Your task to perform on an android device: empty trash in google photos Image 0: 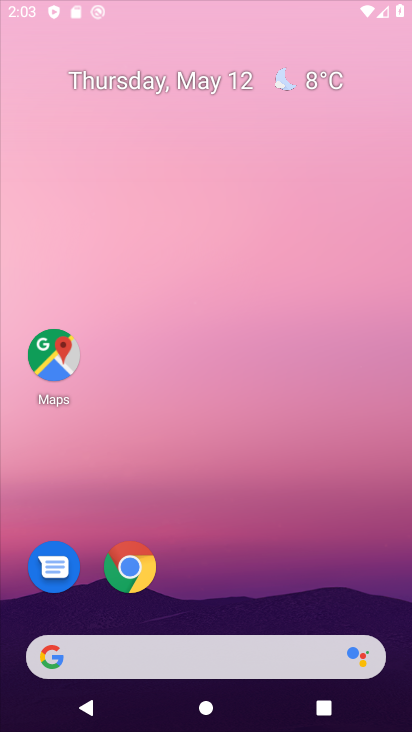
Step 0: click (63, 355)
Your task to perform on an android device: empty trash in google photos Image 1: 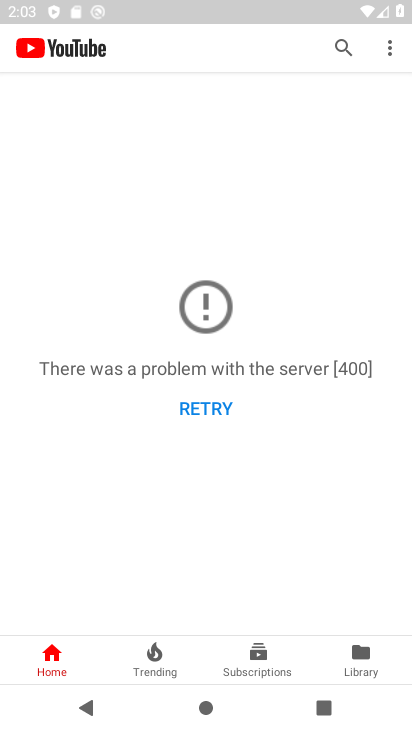
Step 1: press home button
Your task to perform on an android device: empty trash in google photos Image 2: 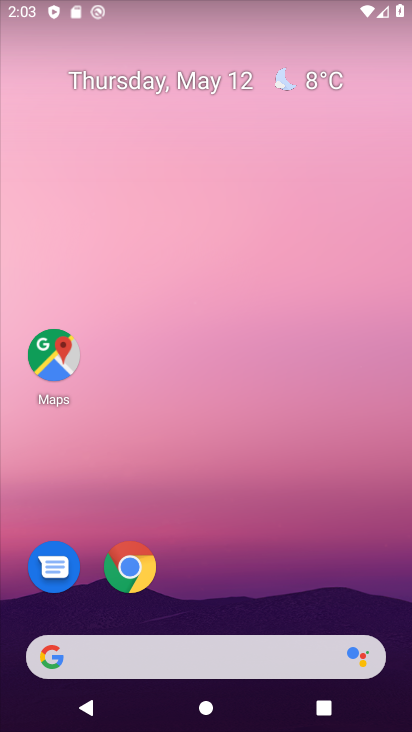
Step 2: drag from (242, 490) to (263, 183)
Your task to perform on an android device: empty trash in google photos Image 3: 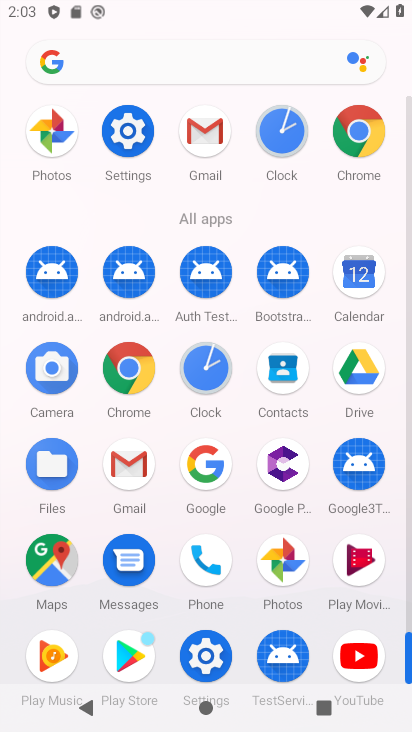
Step 3: click (57, 135)
Your task to perform on an android device: empty trash in google photos Image 4: 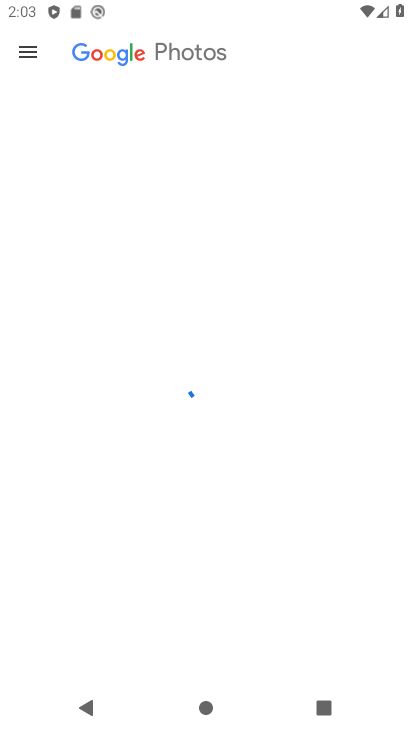
Step 4: click (31, 53)
Your task to perform on an android device: empty trash in google photos Image 5: 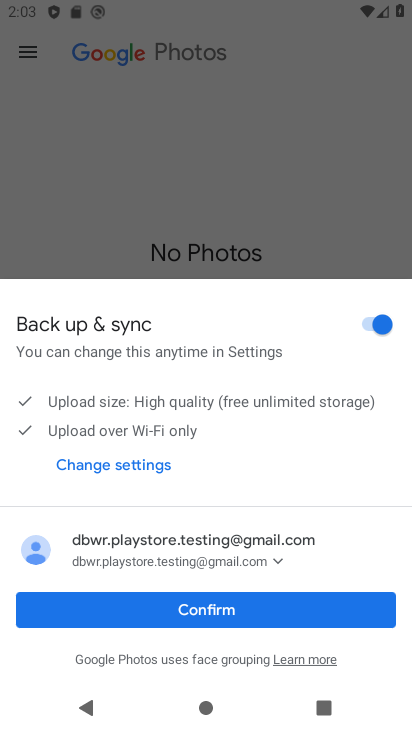
Step 5: click (303, 601)
Your task to perform on an android device: empty trash in google photos Image 6: 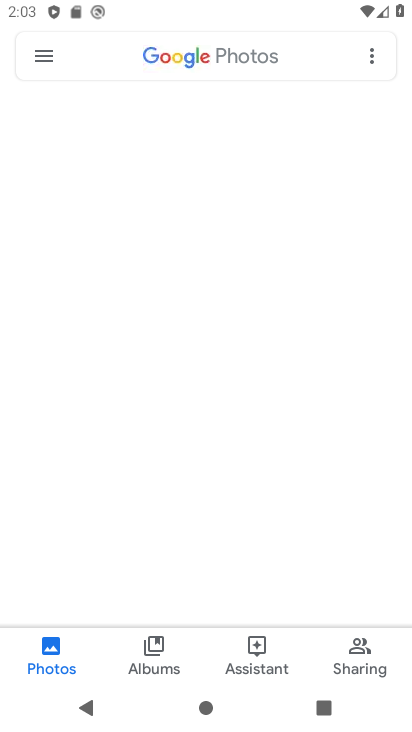
Step 6: drag from (31, 59) to (51, 97)
Your task to perform on an android device: empty trash in google photos Image 7: 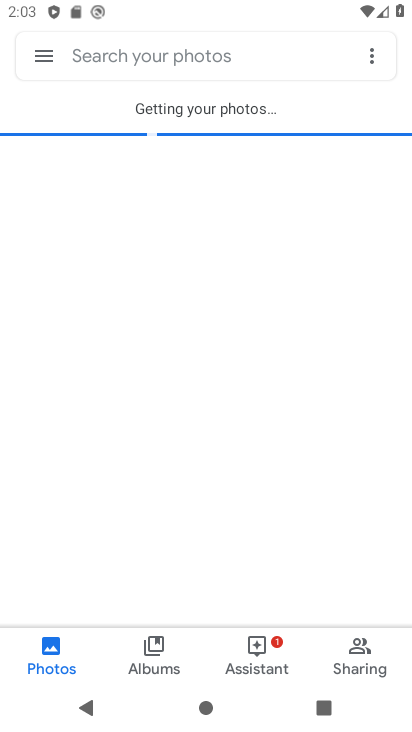
Step 7: click (45, 66)
Your task to perform on an android device: empty trash in google photos Image 8: 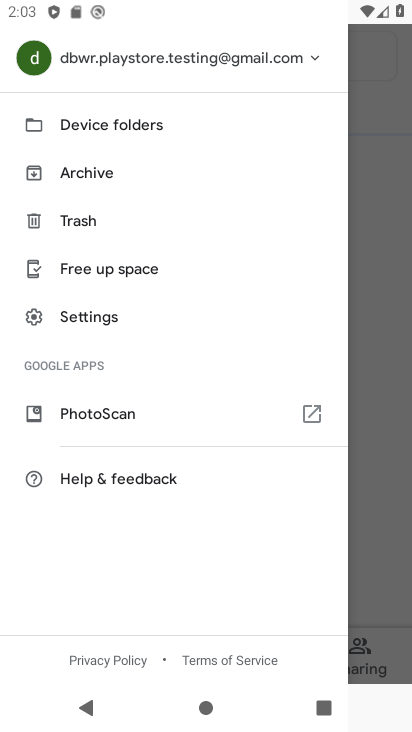
Step 8: click (88, 215)
Your task to perform on an android device: empty trash in google photos Image 9: 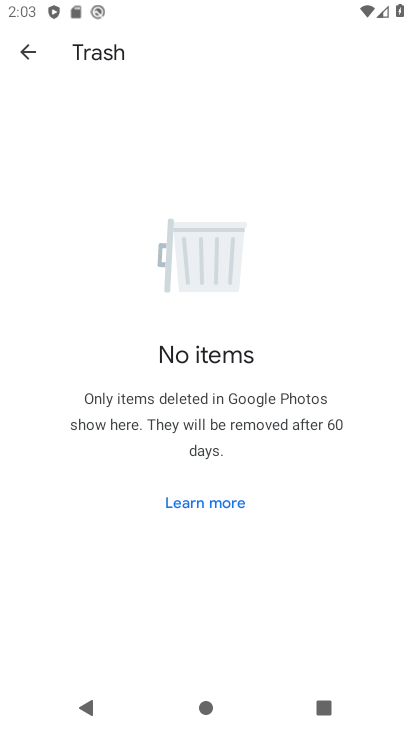
Step 9: task complete